Your task to perform on an android device: Search for Mexican restaurants on Maps Image 0: 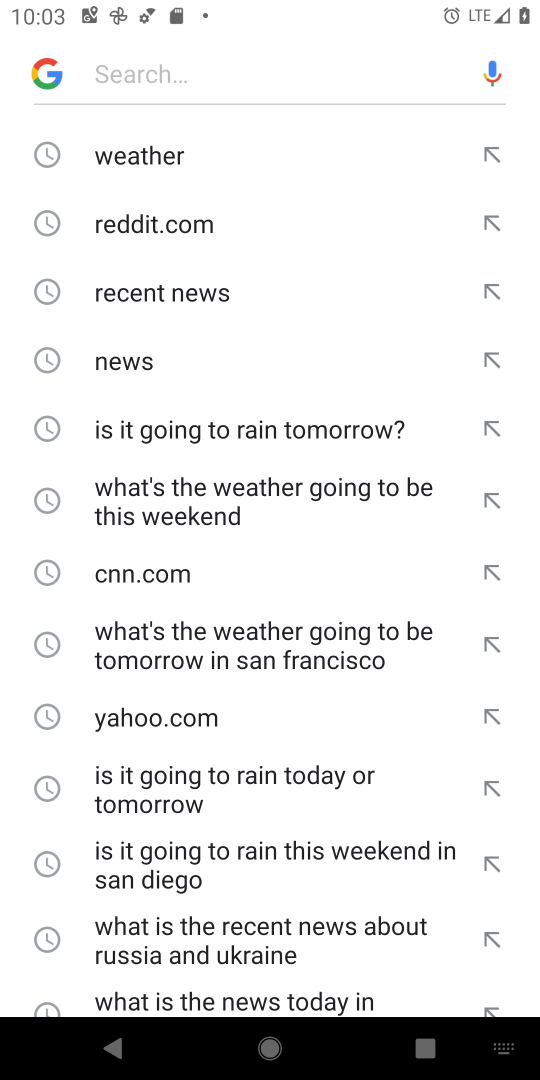
Step 0: press home button
Your task to perform on an android device: Search for Mexican restaurants on Maps Image 1: 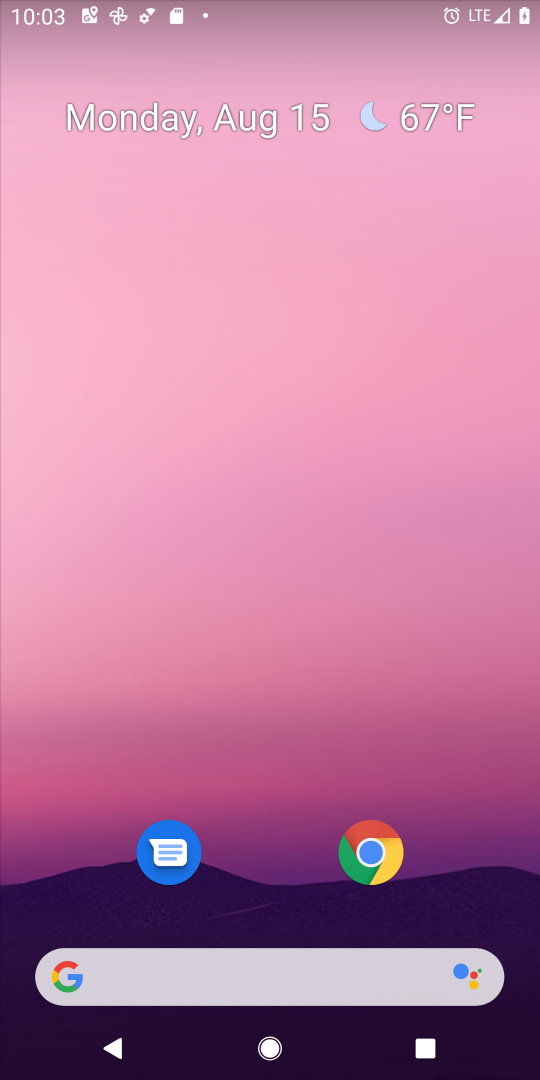
Step 1: drag from (268, 953) to (224, 156)
Your task to perform on an android device: Search for Mexican restaurants on Maps Image 2: 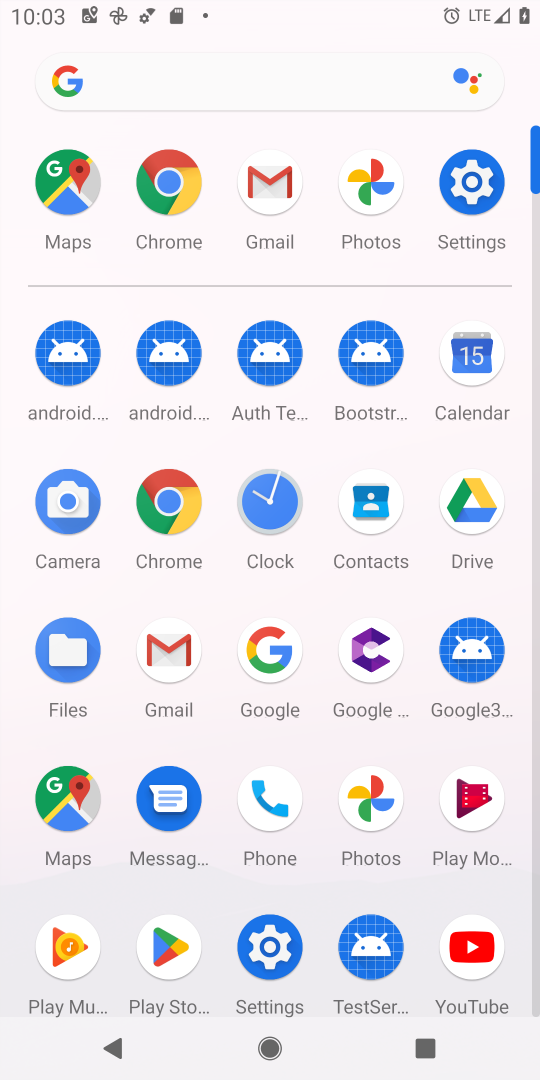
Step 2: click (69, 180)
Your task to perform on an android device: Search for Mexican restaurants on Maps Image 3: 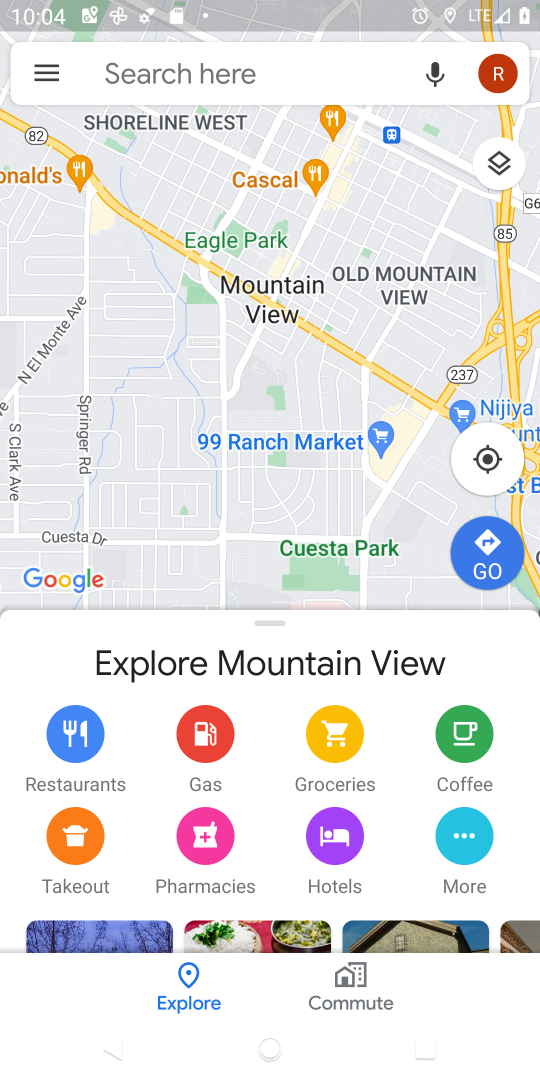
Step 3: click (252, 72)
Your task to perform on an android device: Search for Mexican restaurants on Maps Image 4: 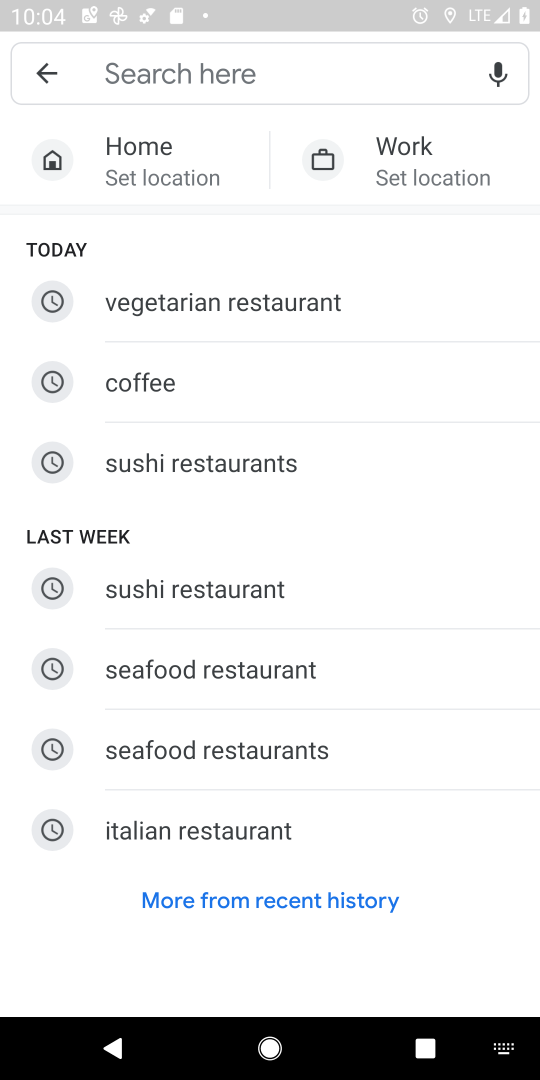
Step 4: type "Mexican restaurants"
Your task to perform on an android device: Search for Mexican restaurants on Maps Image 5: 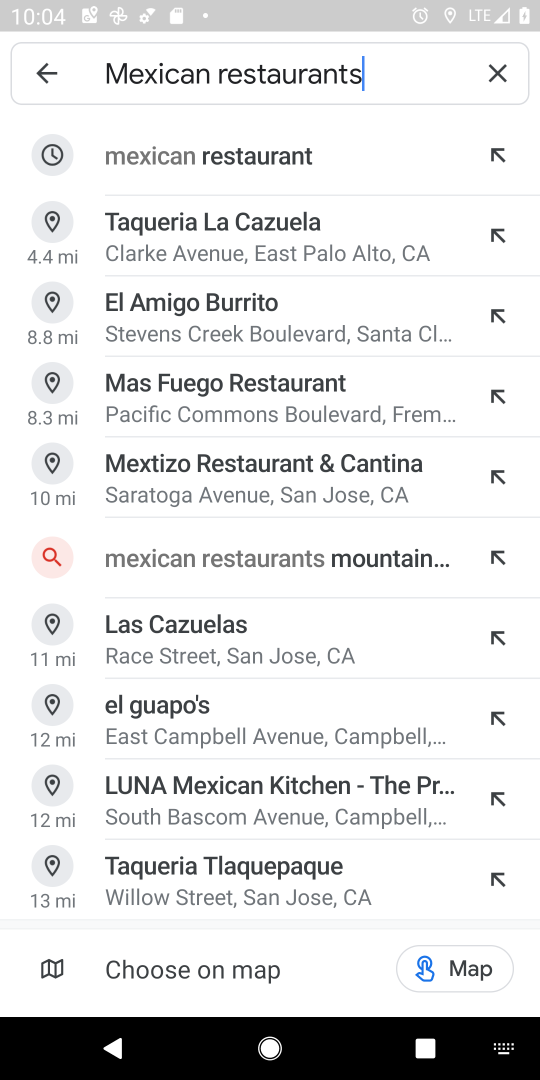
Step 5: click (264, 166)
Your task to perform on an android device: Search for Mexican restaurants on Maps Image 6: 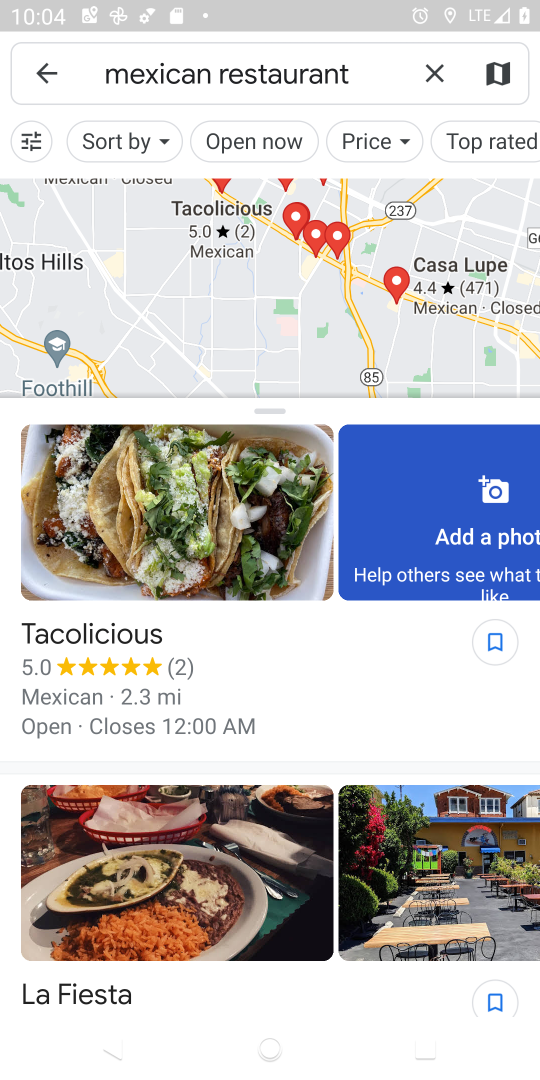
Step 6: task complete